Your task to perform on an android device: Open maps Image 0: 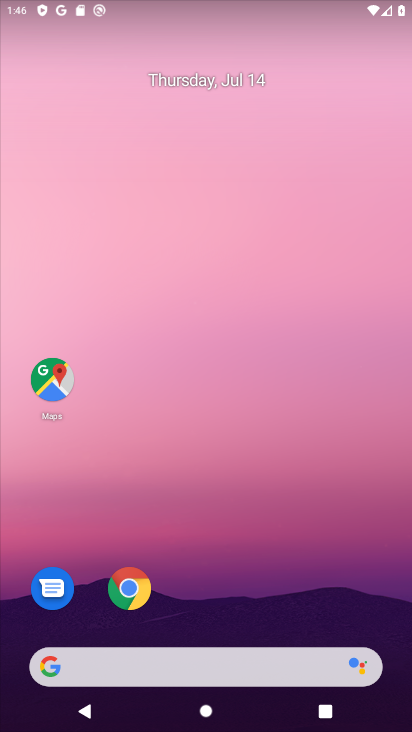
Step 0: click (60, 383)
Your task to perform on an android device: Open maps Image 1: 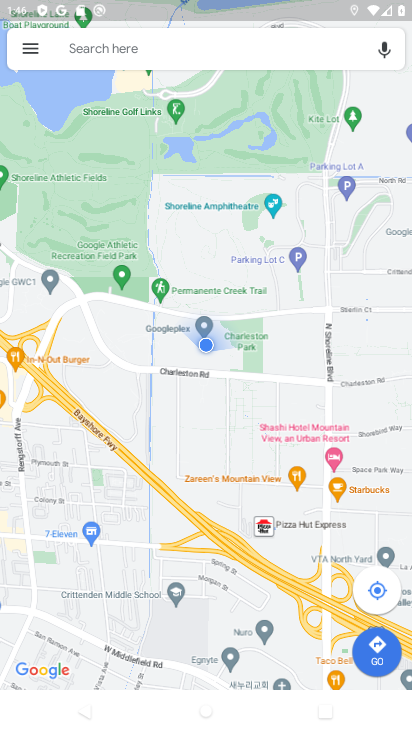
Step 1: task complete